Your task to perform on an android device: change text size in settings app Image 0: 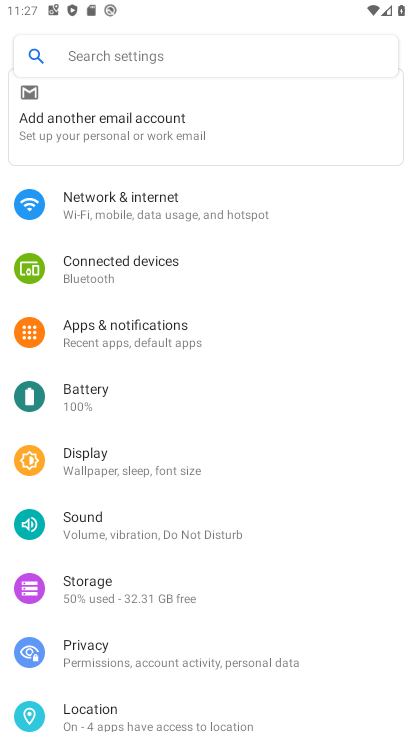
Step 0: press home button
Your task to perform on an android device: change text size in settings app Image 1: 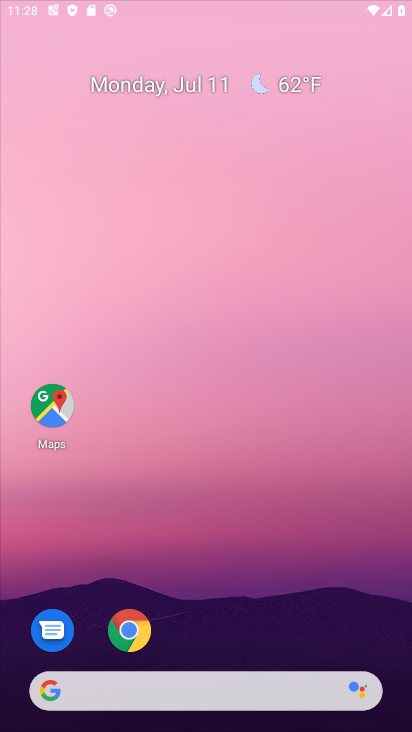
Step 1: drag from (247, 681) to (245, 89)
Your task to perform on an android device: change text size in settings app Image 2: 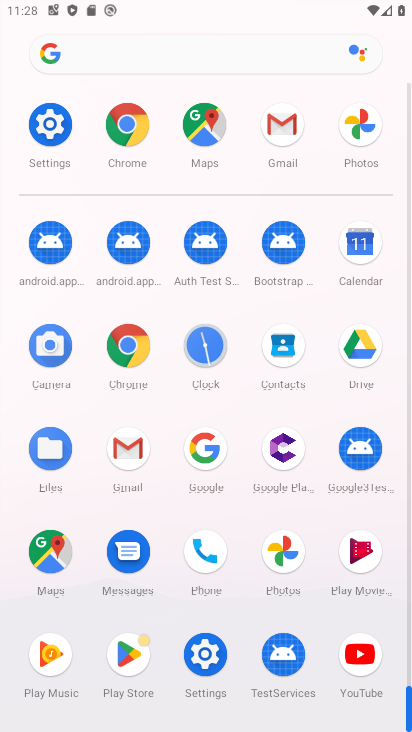
Step 2: click (47, 124)
Your task to perform on an android device: change text size in settings app Image 3: 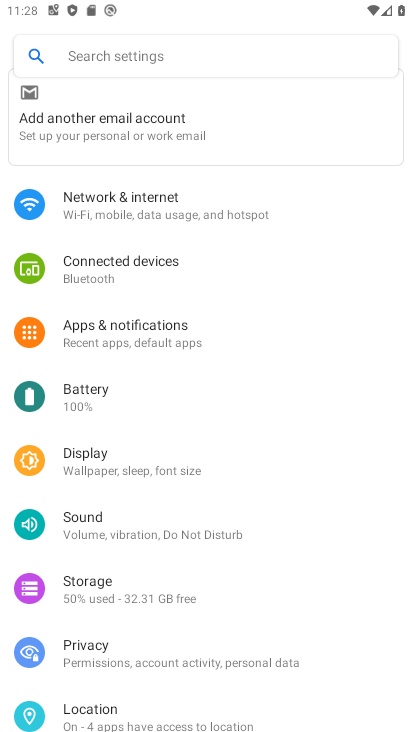
Step 3: drag from (143, 674) to (192, 59)
Your task to perform on an android device: change text size in settings app Image 4: 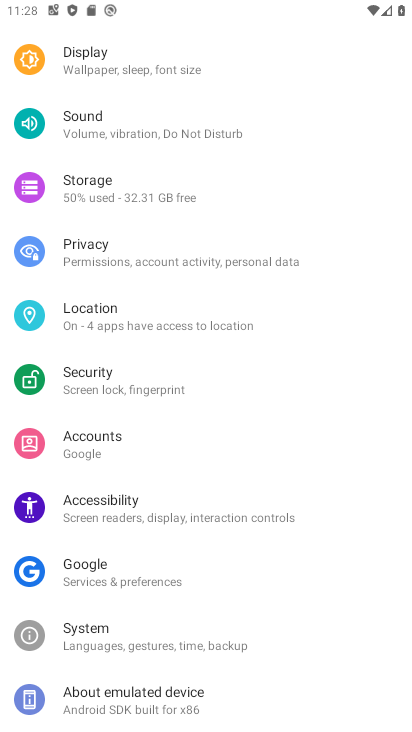
Step 4: click (134, 504)
Your task to perform on an android device: change text size in settings app Image 5: 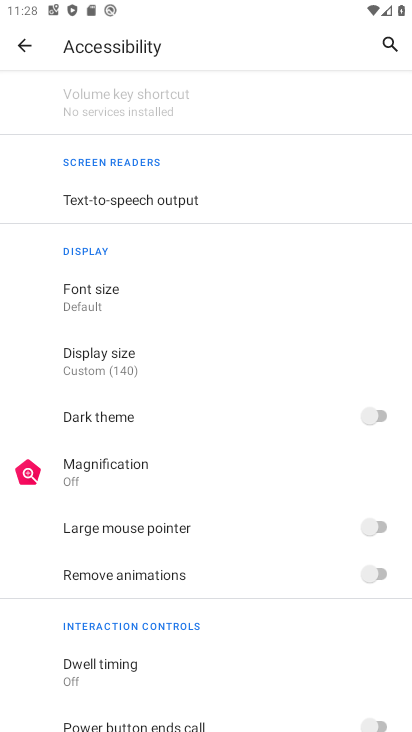
Step 5: click (105, 301)
Your task to perform on an android device: change text size in settings app Image 6: 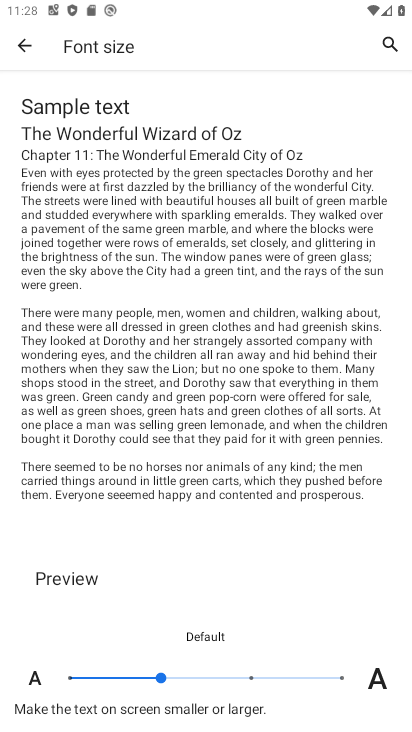
Step 6: click (246, 673)
Your task to perform on an android device: change text size in settings app Image 7: 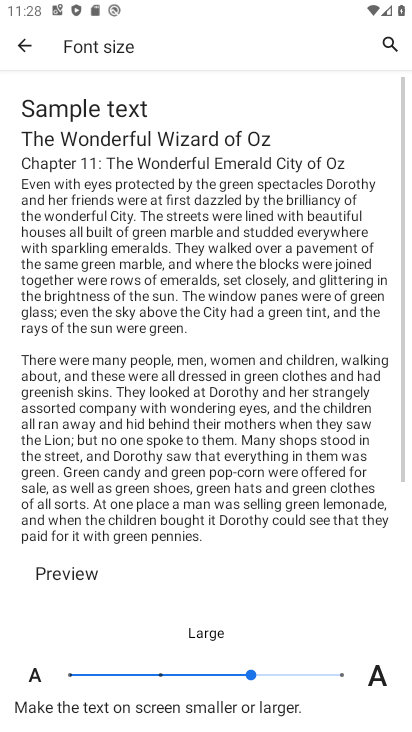
Step 7: task complete